Your task to perform on an android device: empty trash in google photos Image 0: 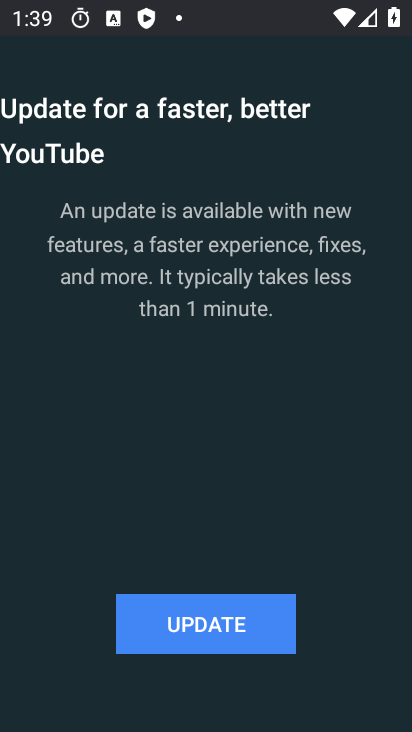
Step 0: press home button
Your task to perform on an android device: empty trash in google photos Image 1: 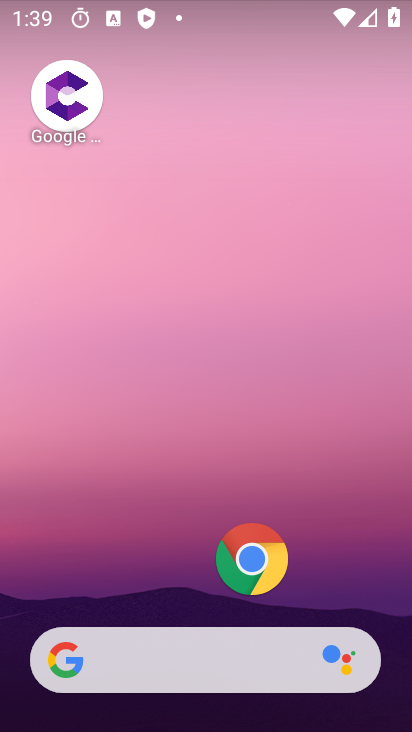
Step 1: drag from (179, 612) to (227, 227)
Your task to perform on an android device: empty trash in google photos Image 2: 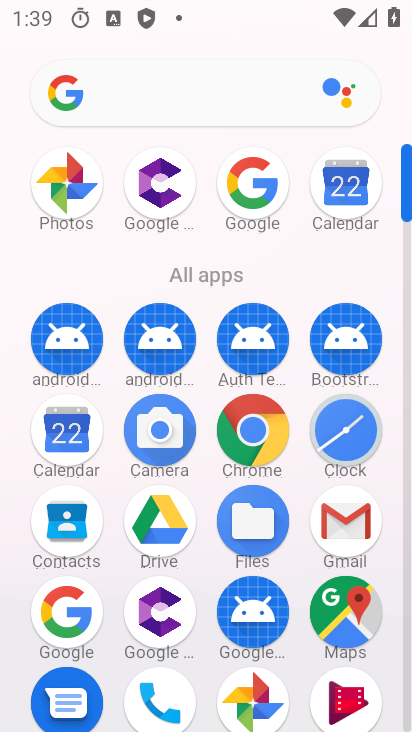
Step 2: drag from (204, 642) to (222, 249)
Your task to perform on an android device: empty trash in google photos Image 3: 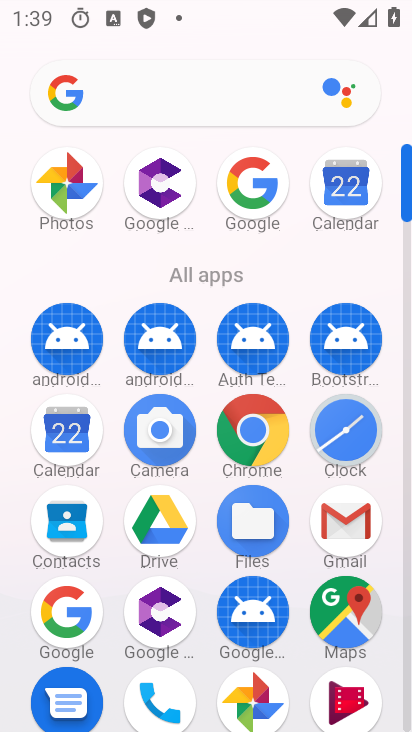
Step 3: click (256, 709)
Your task to perform on an android device: empty trash in google photos Image 4: 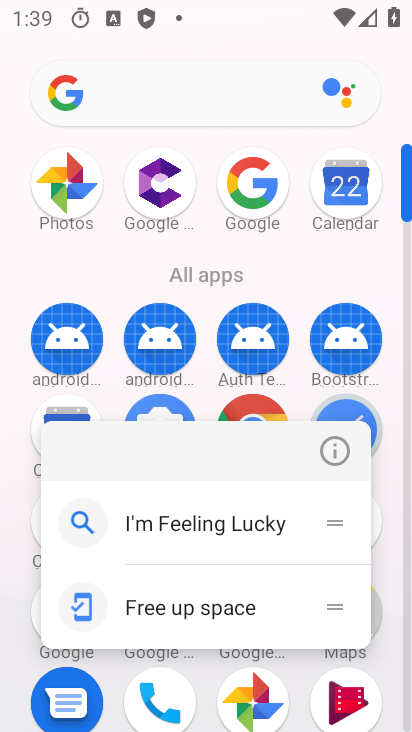
Step 4: click (247, 699)
Your task to perform on an android device: empty trash in google photos Image 5: 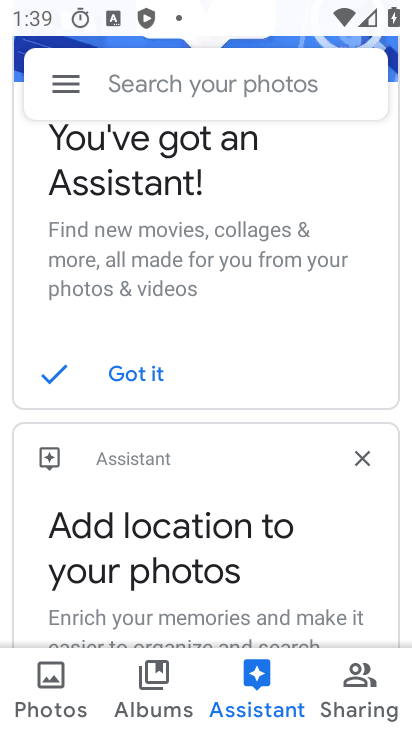
Step 5: click (66, 72)
Your task to perform on an android device: empty trash in google photos Image 6: 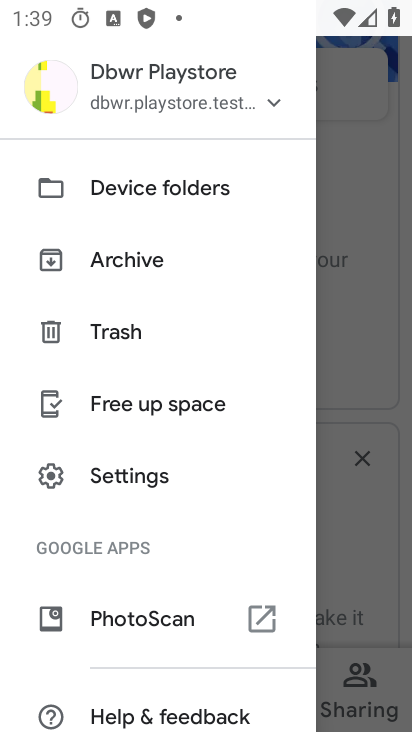
Step 6: click (128, 334)
Your task to perform on an android device: empty trash in google photos Image 7: 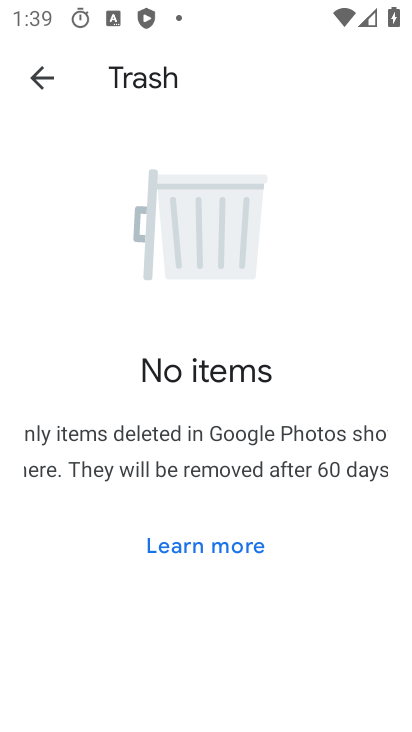
Step 7: task complete